Your task to perform on an android device: move a message to another label in the gmail app Image 0: 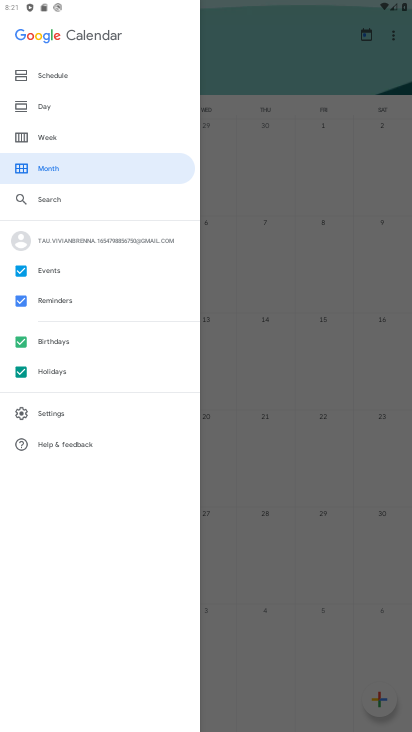
Step 0: press home button
Your task to perform on an android device: move a message to another label in the gmail app Image 1: 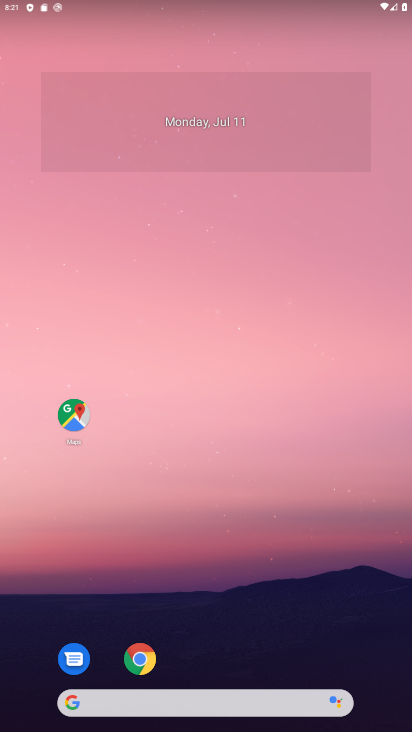
Step 1: drag from (257, 159) to (282, 58)
Your task to perform on an android device: move a message to another label in the gmail app Image 2: 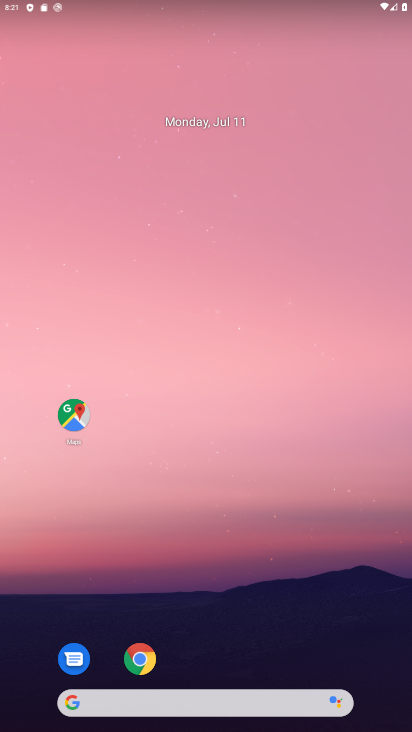
Step 2: drag from (22, 688) to (383, 104)
Your task to perform on an android device: move a message to another label in the gmail app Image 3: 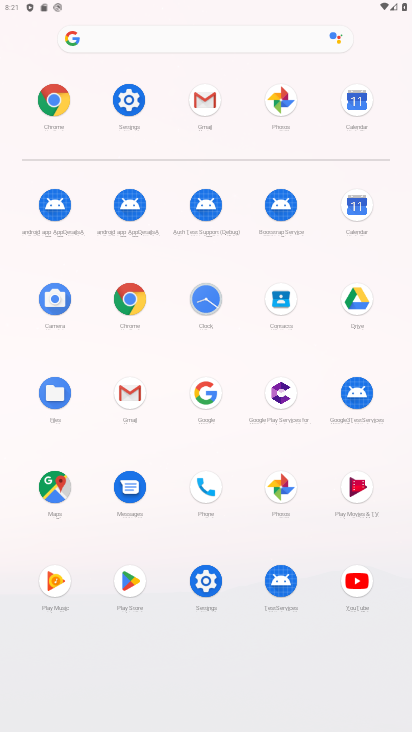
Step 3: click (138, 400)
Your task to perform on an android device: move a message to another label in the gmail app Image 4: 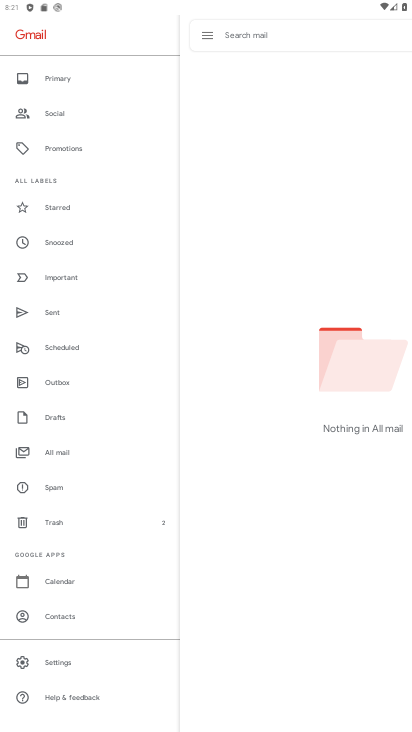
Step 4: task complete